Your task to perform on an android device: turn off sleep mode Image 0: 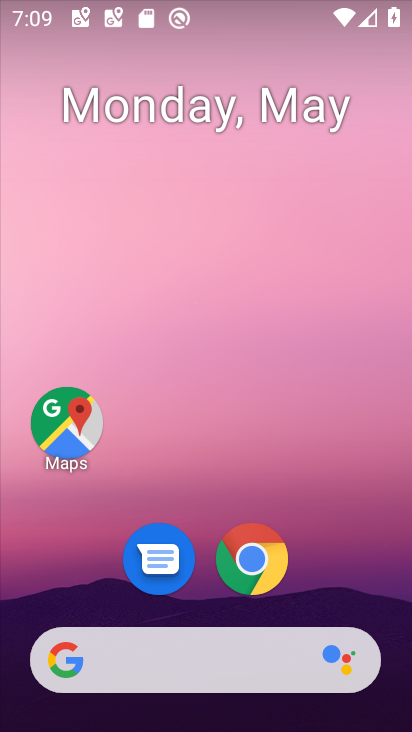
Step 0: drag from (391, 659) to (277, 46)
Your task to perform on an android device: turn off sleep mode Image 1: 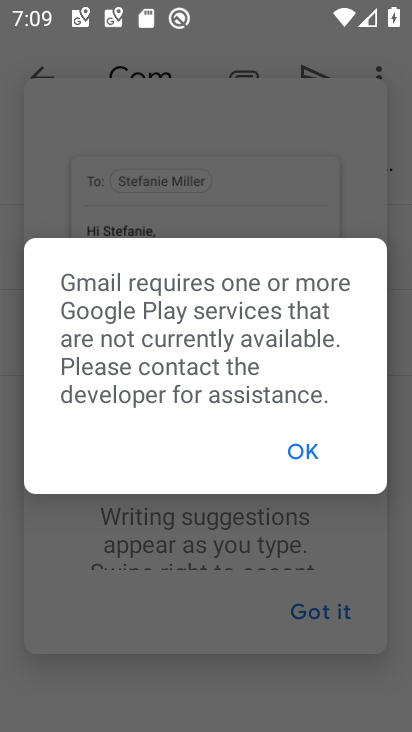
Step 1: press home button
Your task to perform on an android device: turn off sleep mode Image 2: 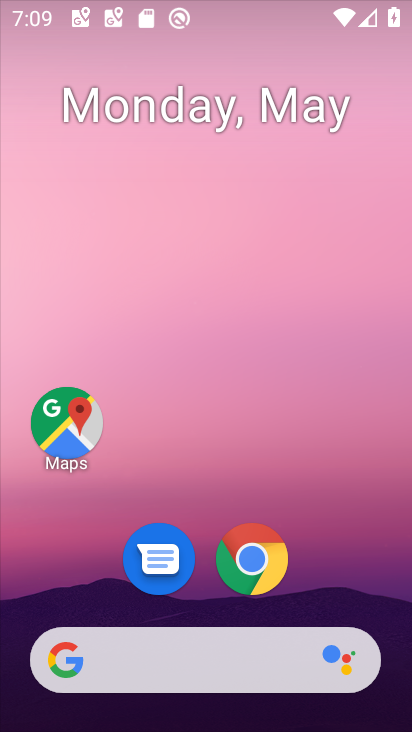
Step 2: drag from (384, 645) to (262, 58)
Your task to perform on an android device: turn off sleep mode Image 3: 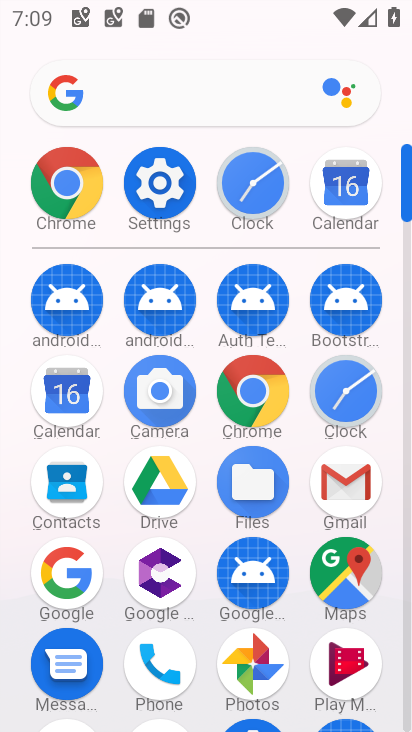
Step 3: click (172, 193)
Your task to perform on an android device: turn off sleep mode Image 4: 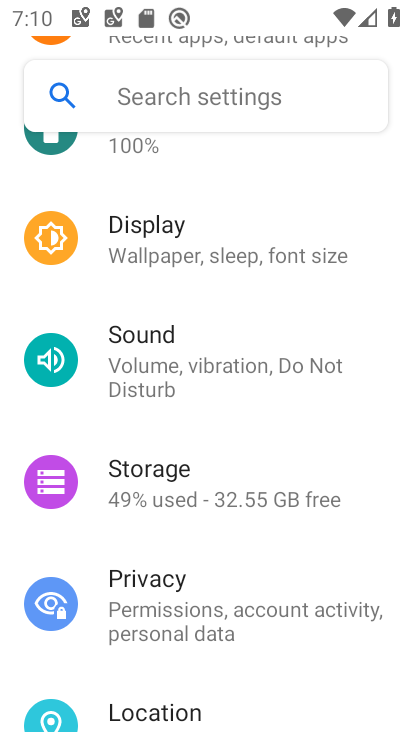
Step 4: task complete